Your task to perform on an android device: change notification settings in the gmail app Image 0: 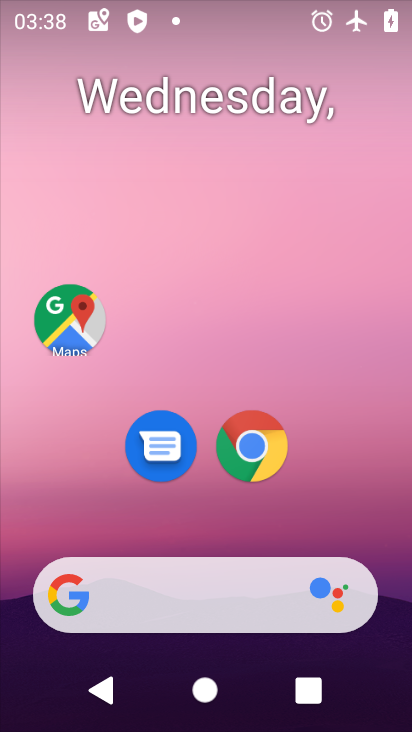
Step 0: drag from (200, 526) to (202, 250)
Your task to perform on an android device: change notification settings in the gmail app Image 1: 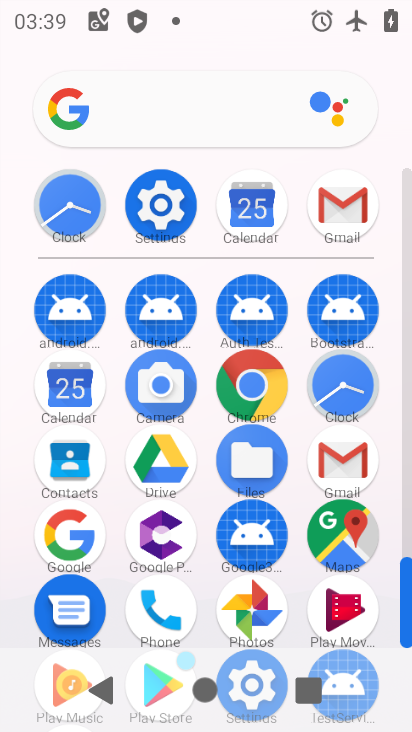
Step 1: click (326, 211)
Your task to perform on an android device: change notification settings in the gmail app Image 2: 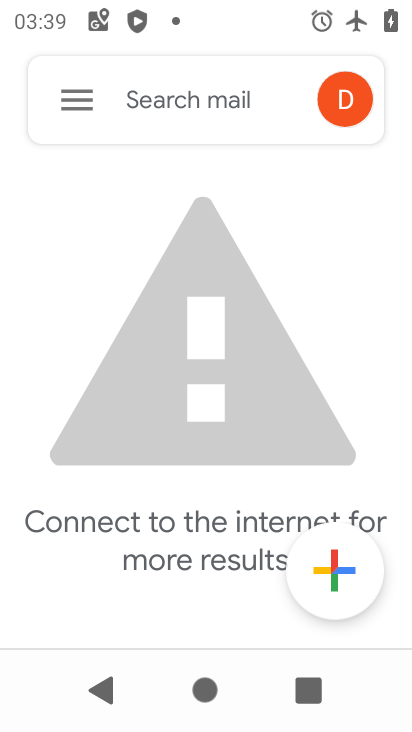
Step 2: click (84, 88)
Your task to perform on an android device: change notification settings in the gmail app Image 3: 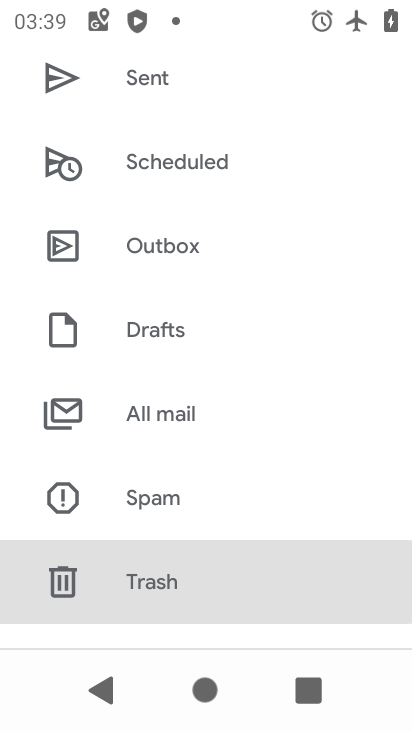
Step 3: drag from (236, 487) to (241, 148)
Your task to perform on an android device: change notification settings in the gmail app Image 4: 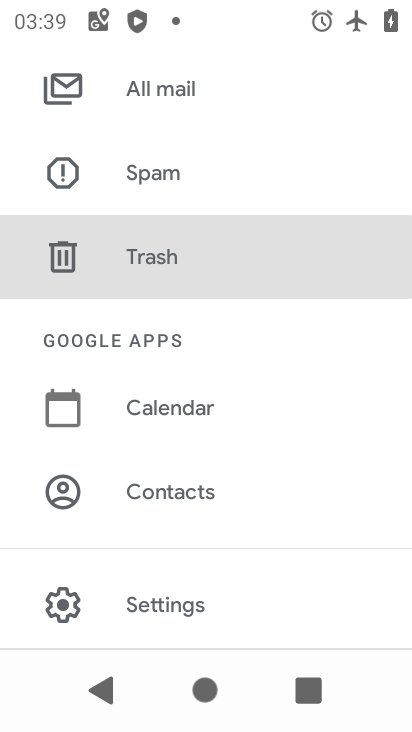
Step 4: drag from (214, 494) to (217, 254)
Your task to perform on an android device: change notification settings in the gmail app Image 5: 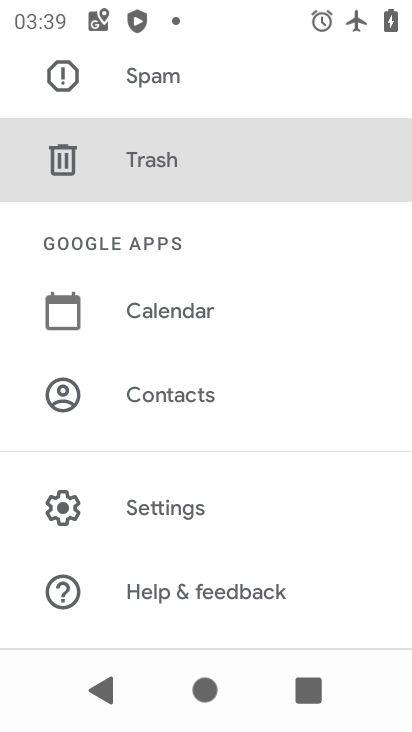
Step 5: click (171, 510)
Your task to perform on an android device: change notification settings in the gmail app Image 6: 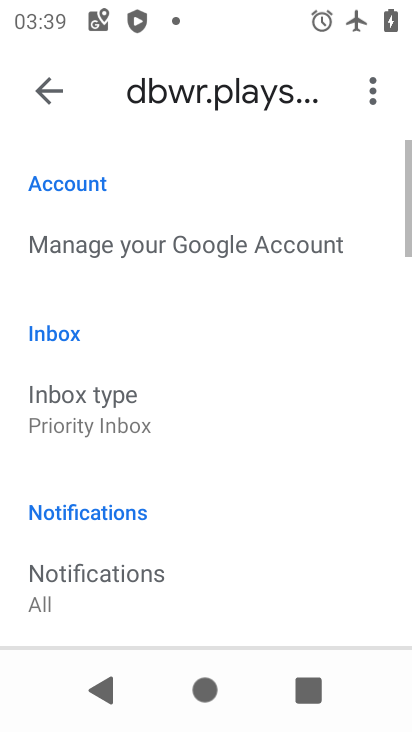
Step 6: drag from (186, 517) to (186, 335)
Your task to perform on an android device: change notification settings in the gmail app Image 7: 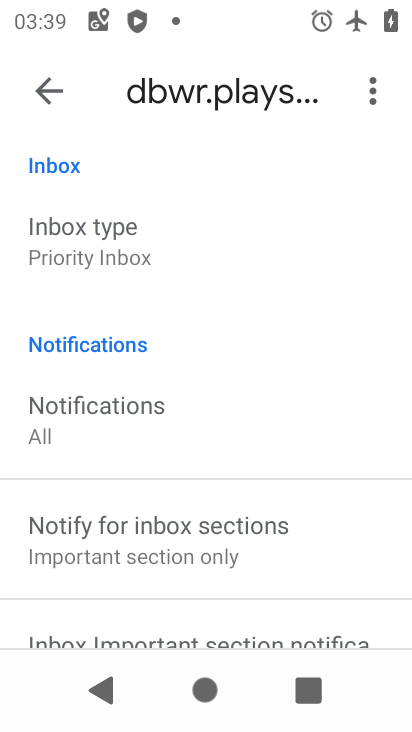
Step 7: drag from (186, 556) to (194, 296)
Your task to perform on an android device: change notification settings in the gmail app Image 8: 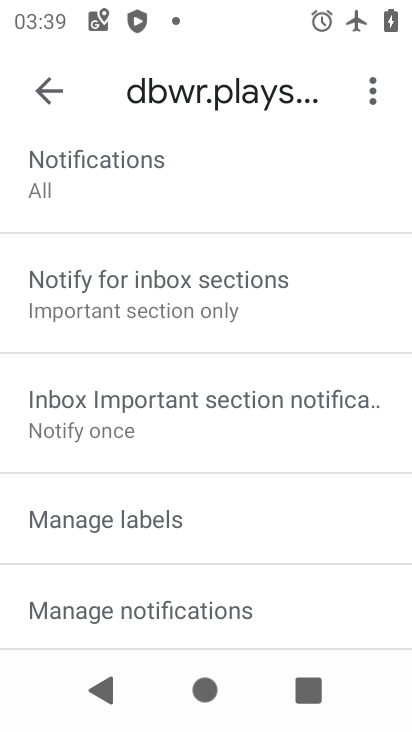
Step 8: click (220, 610)
Your task to perform on an android device: change notification settings in the gmail app Image 9: 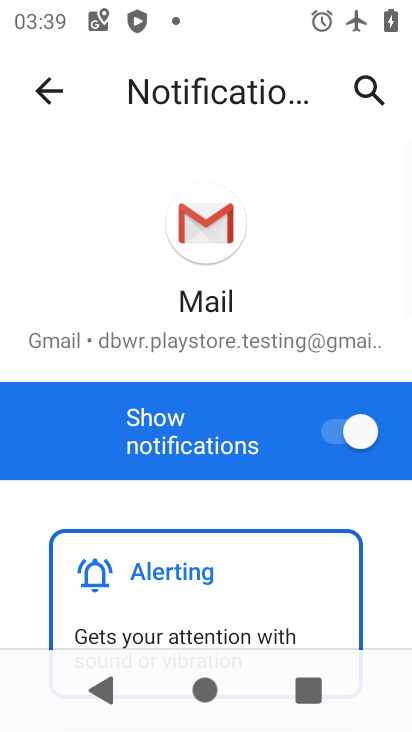
Step 9: click (322, 437)
Your task to perform on an android device: change notification settings in the gmail app Image 10: 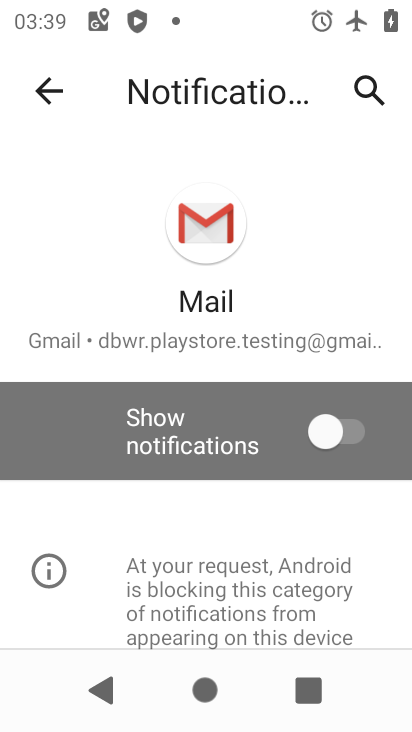
Step 10: task complete